Your task to perform on an android device: change your default location settings in chrome Image 0: 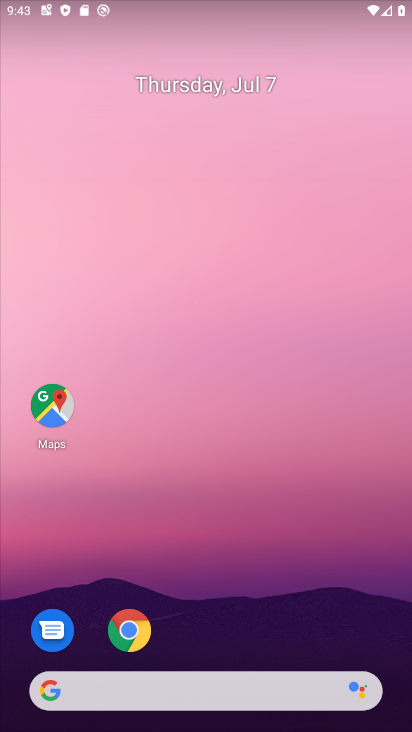
Step 0: drag from (234, 650) to (239, 315)
Your task to perform on an android device: change your default location settings in chrome Image 1: 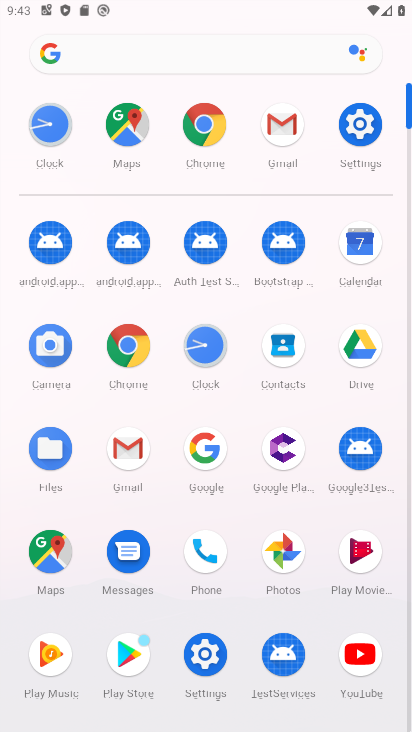
Step 1: click (204, 124)
Your task to perform on an android device: change your default location settings in chrome Image 2: 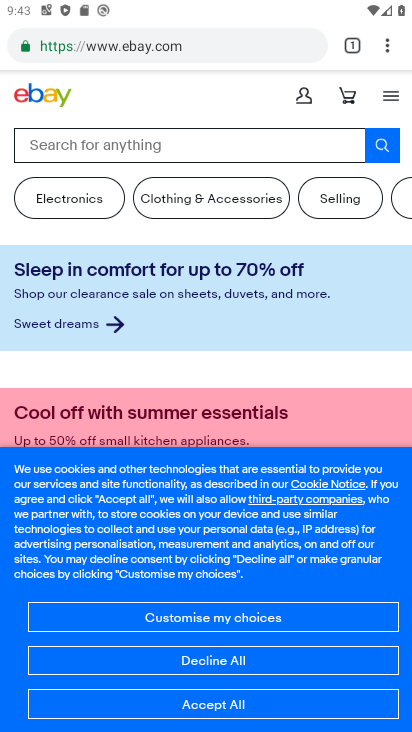
Step 2: click (390, 45)
Your task to perform on an android device: change your default location settings in chrome Image 3: 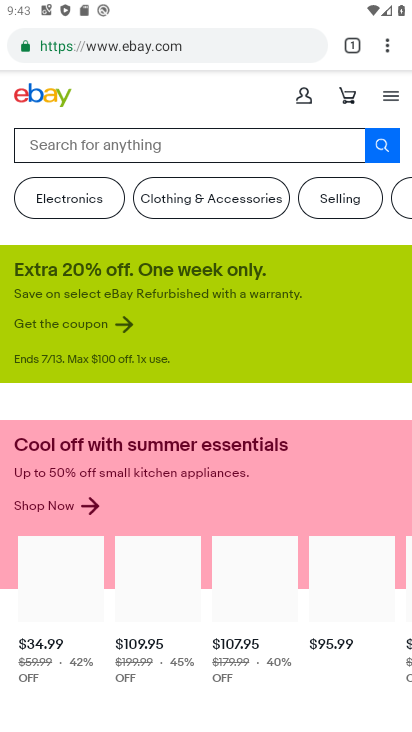
Step 3: click (390, 45)
Your task to perform on an android device: change your default location settings in chrome Image 4: 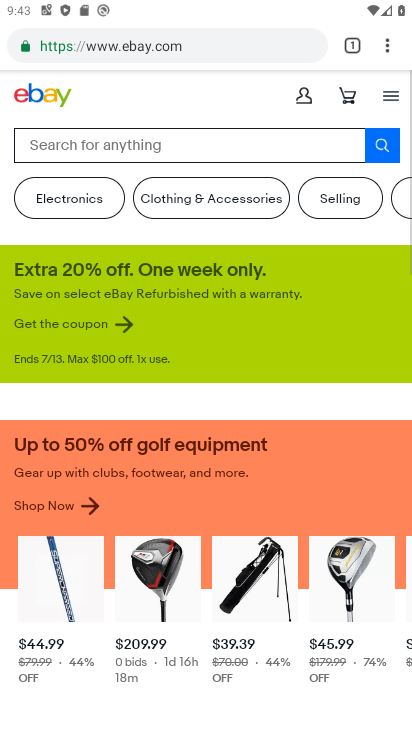
Step 4: click (384, 41)
Your task to perform on an android device: change your default location settings in chrome Image 5: 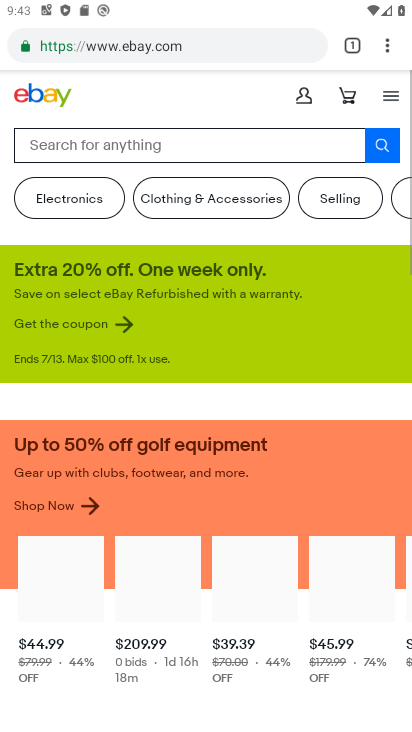
Step 5: click (386, 46)
Your task to perform on an android device: change your default location settings in chrome Image 6: 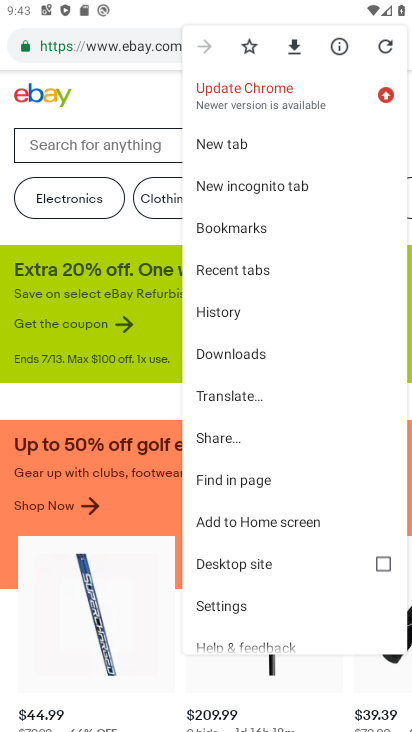
Step 6: click (237, 606)
Your task to perform on an android device: change your default location settings in chrome Image 7: 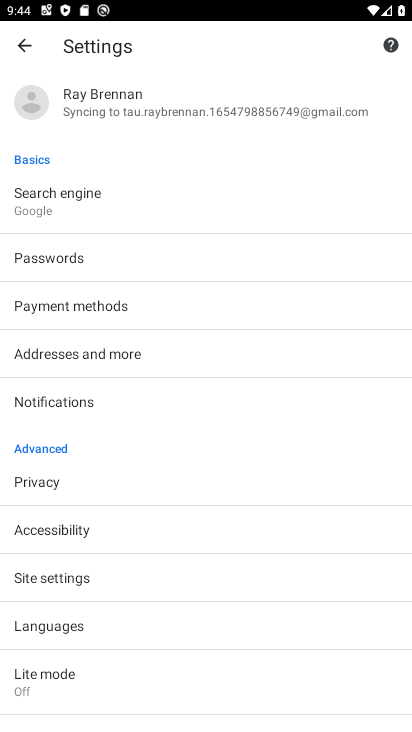
Step 7: click (40, 576)
Your task to perform on an android device: change your default location settings in chrome Image 8: 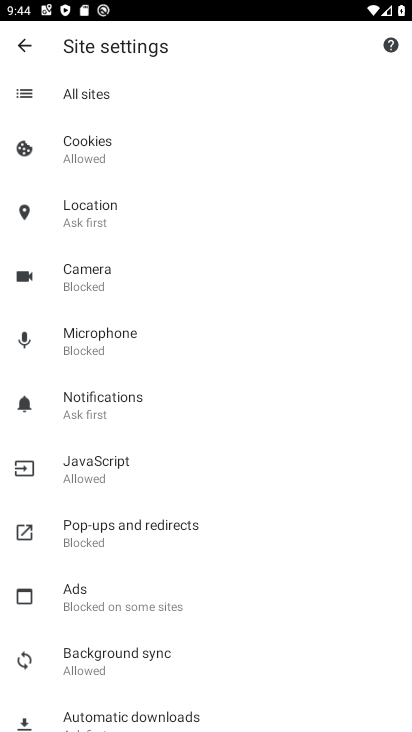
Step 8: click (83, 222)
Your task to perform on an android device: change your default location settings in chrome Image 9: 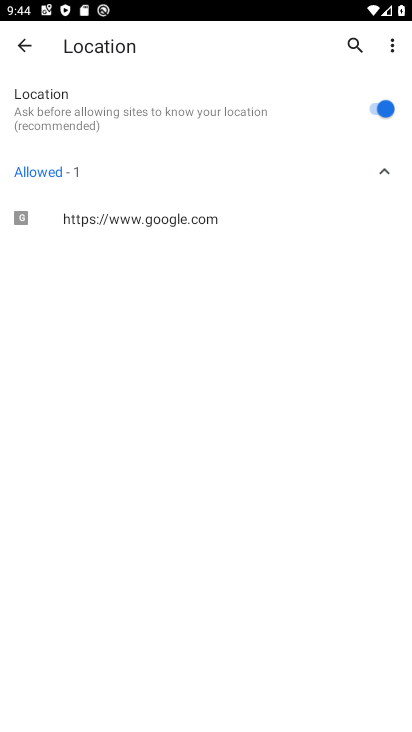
Step 9: click (376, 113)
Your task to perform on an android device: change your default location settings in chrome Image 10: 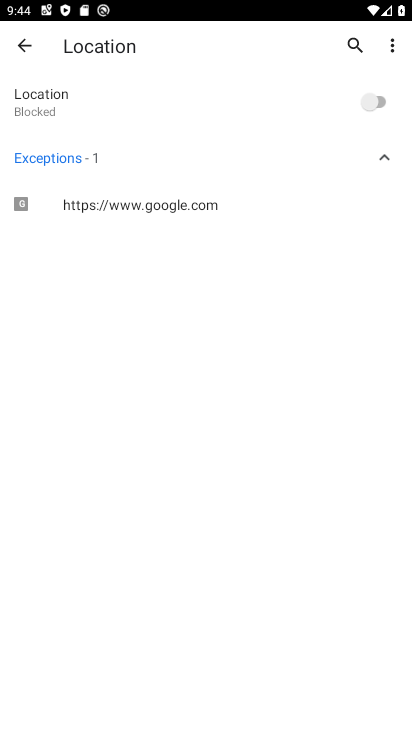
Step 10: task complete